Your task to perform on an android device: Go to settings Image 0: 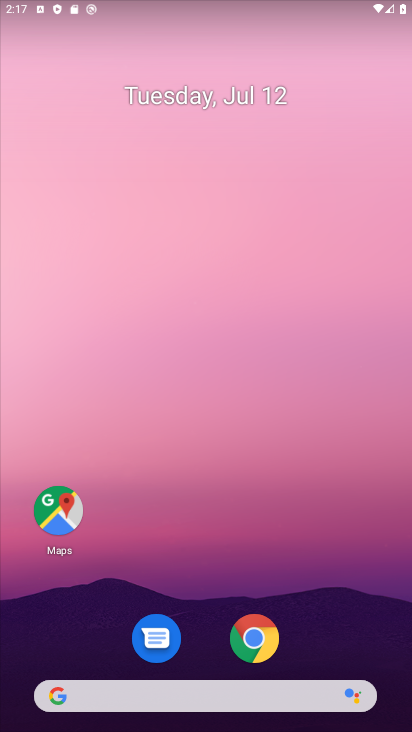
Step 0: drag from (222, 631) to (284, 95)
Your task to perform on an android device: Go to settings Image 1: 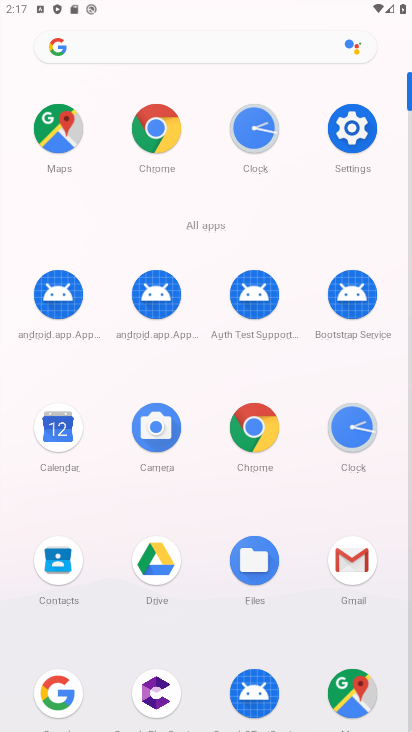
Step 1: click (351, 126)
Your task to perform on an android device: Go to settings Image 2: 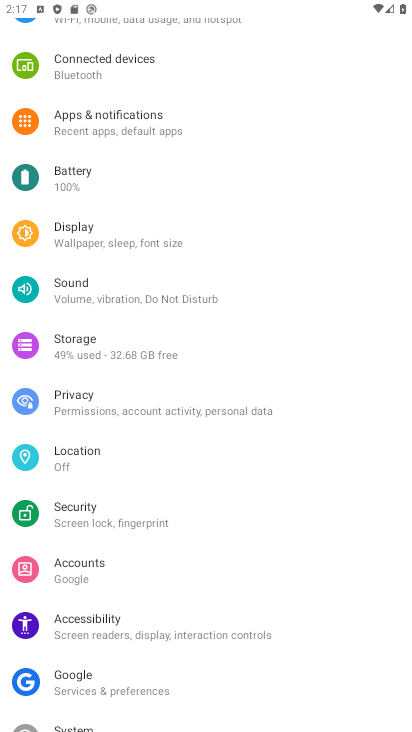
Step 2: task complete